Your task to perform on an android device: Go to location settings Image 0: 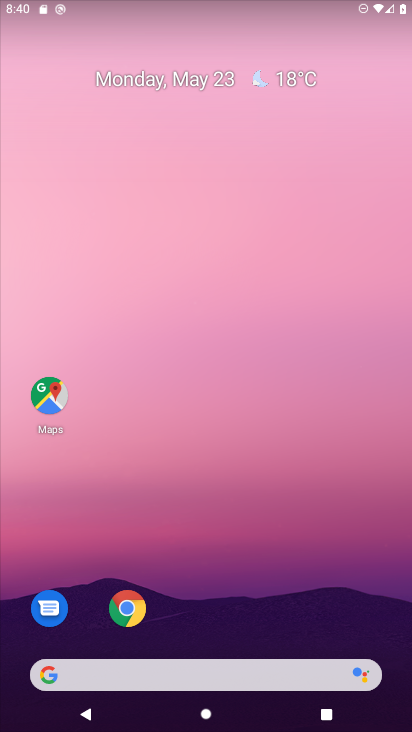
Step 0: drag from (221, 726) to (219, 100)
Your task to perform on an android device: Go to location settings Image 1: 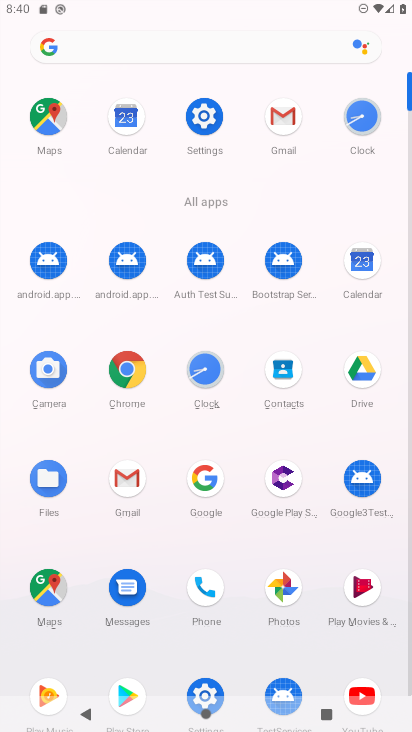
Step 1: click (210, 114)
Your task to perform on an android device: Go to location settings Image 2: 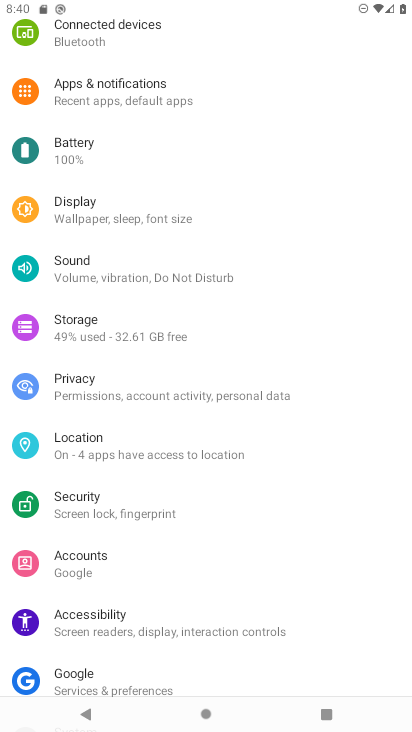
Step 2: click (78, 444)
Your task to perform on an android device: Go to location settings Image 3: 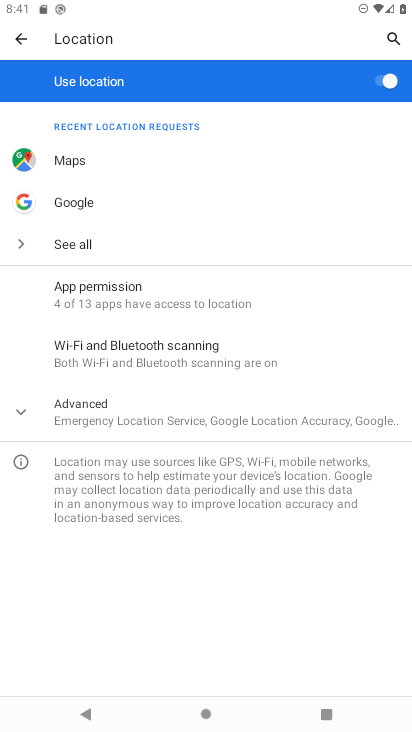
Step 3: task complete